Your task to perform on an android device: Show me the alarms in the clock app Image 0: 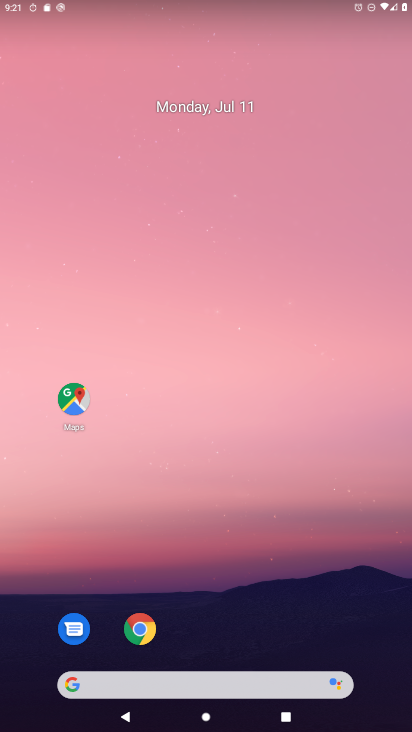
Step 0: drag from (237, 623) to (177, 146)
Your task to perform on an android device: Show me the alarms in the clock app Image 1: 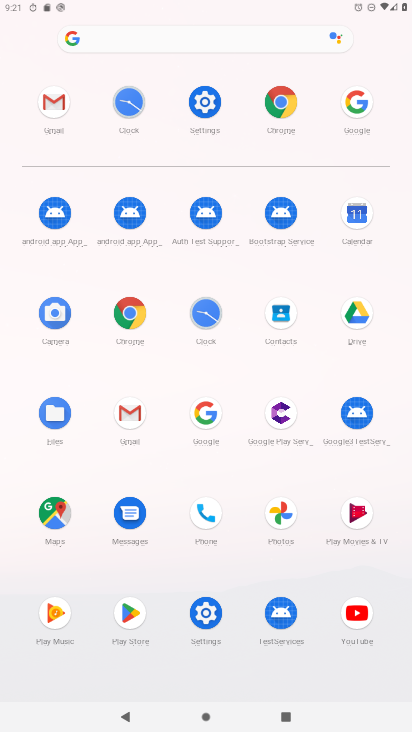
Step 1: click (211, 310)
Your task to perform on an android device: Show me the alarms in the clock app Image 2: 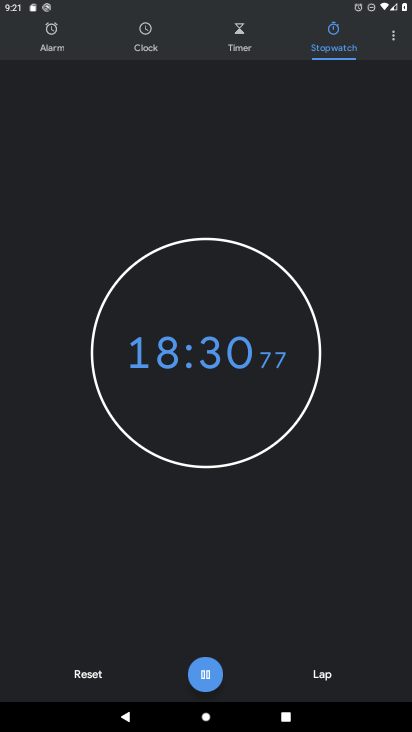
Step 2: click (45, 49)
Your task to perform on an android device: Show me the alarms in the clock app Image 3: 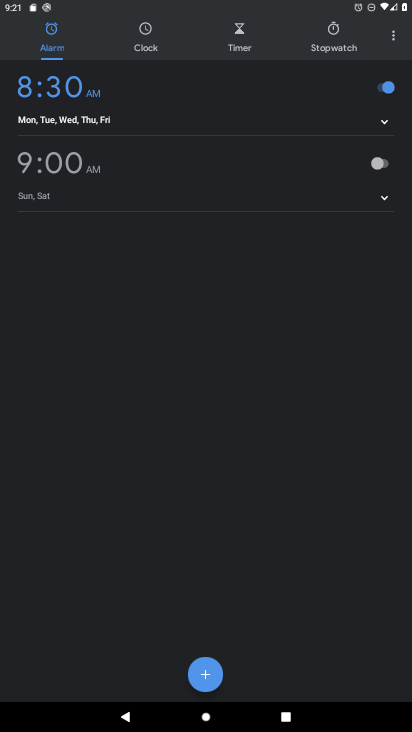
Step 3: task complete